Your task to perform on an android device: Open Maps and search for coffee Image 0: 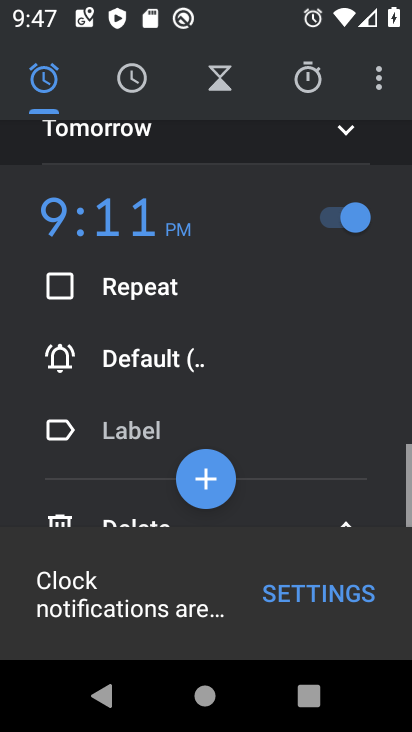
Step 0: press home button
Your task to perform on an android device: Open Maps and search for coffee Image 1: 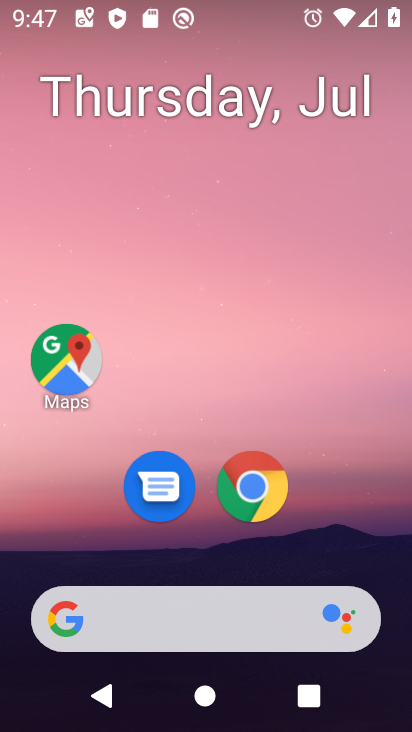
Step 1: drag from (208, 579) to (266, 196)
Your task to perform on an android device: Open Maps and search for coffee Image 2: 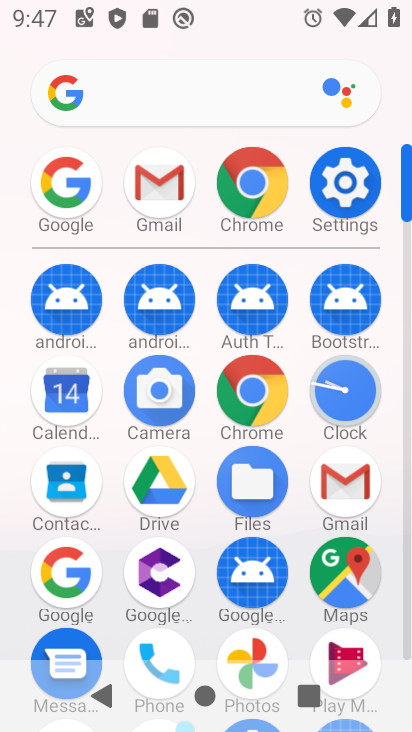
Step 2: click (321, 575)
Your task to perform on an android device: Open Maps and search for coffee Image 3: 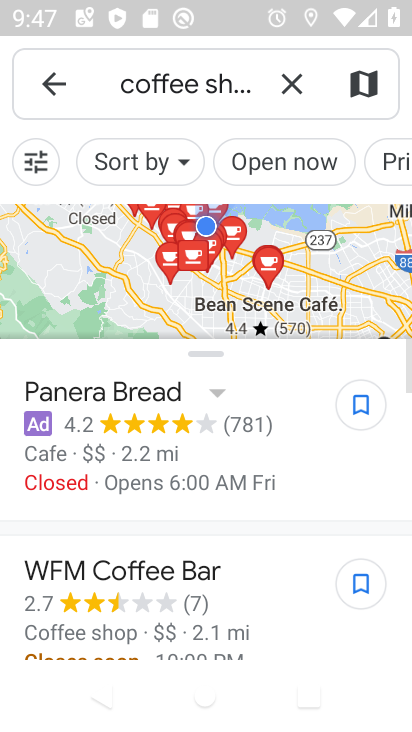
Step 3: click (247, 88)
Your task to perform on an android device: Open Maps and search for coffee Image 4: 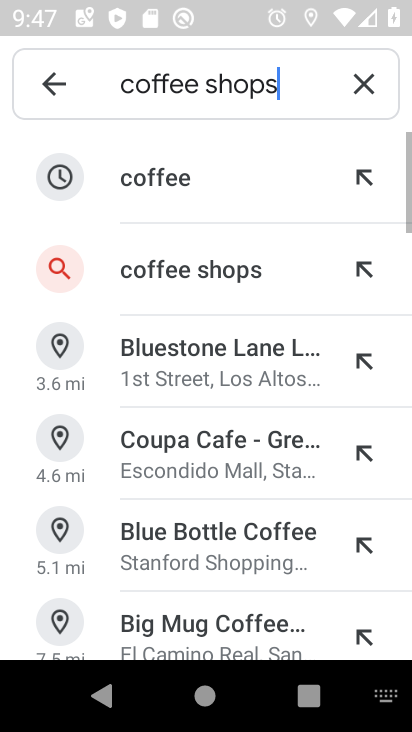
Step 4: click (362, 81)
Your task to perform on an android device: Open Maps and search for coffee Image 5: 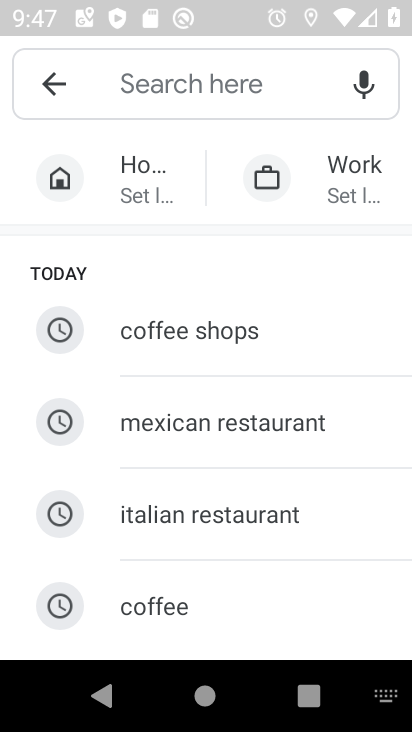
Step 5: click (194, 611)
Your task to perform on an android device: Open Maps and search for coffee Image 6: 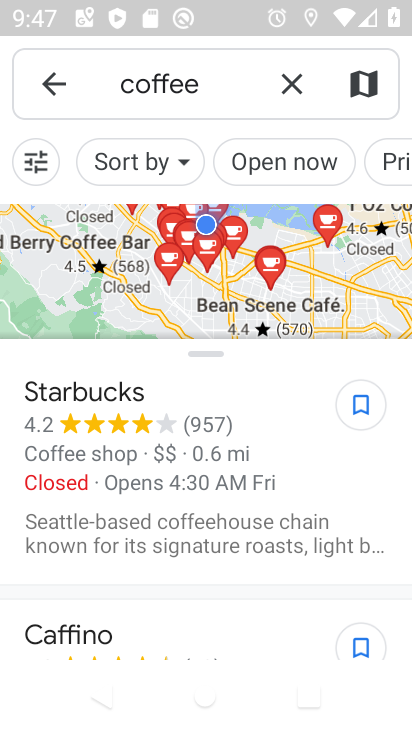
Step 6: task complete